Your task to perform on an android device: Go to Amazon Image 0: 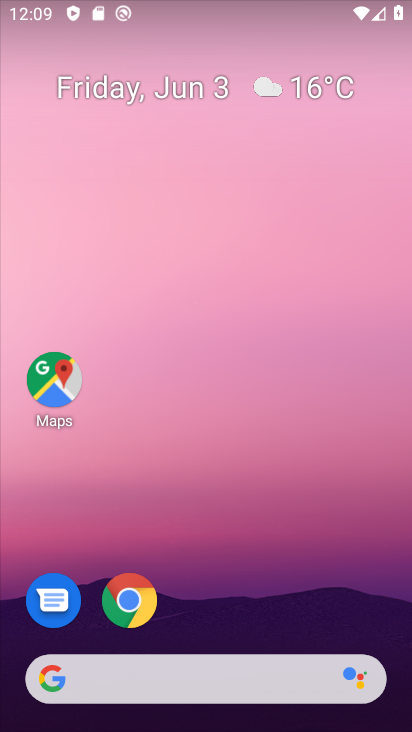
Step 0: drag from (294, 559) to (249, 183)
Your task to perform on an android device: Go to Amazon Image 1: 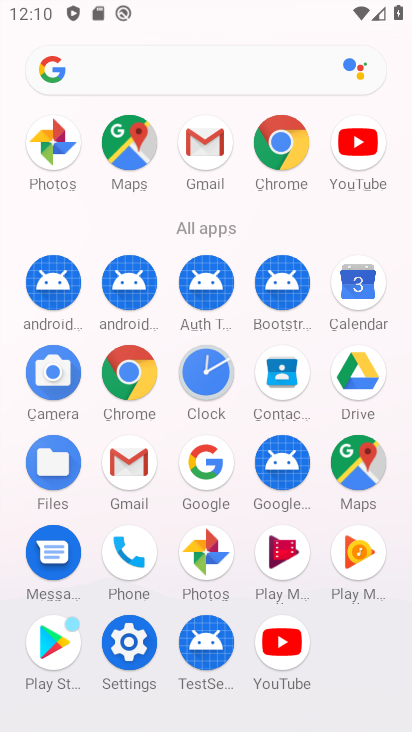
Step 1: click (278, 136)
Your task to perform on an android device: Go to Amazon Image 2: 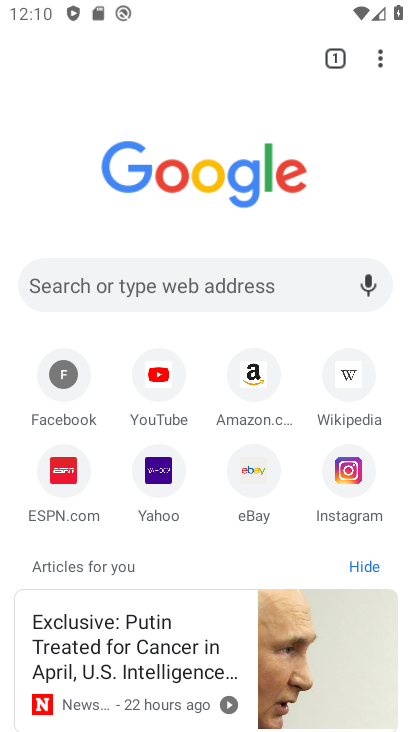
Step 2: click (253, 385)
Your task to perform on an android device: Go to Amazon Image 3: 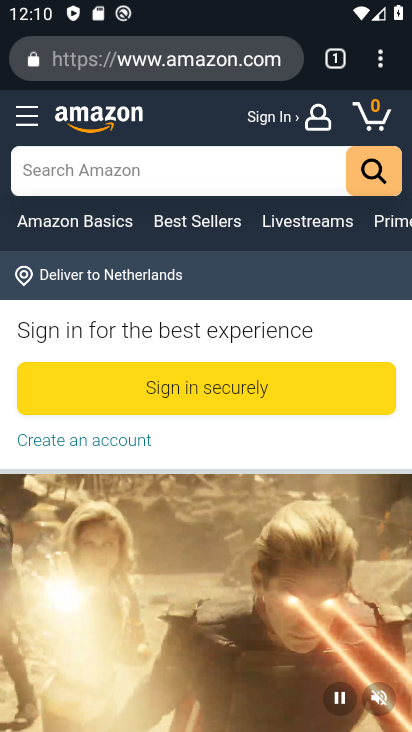
Step 3: task complete